Your task to perform on an android device: Open the Play Movies app and select the watchlist tab. Image 0: 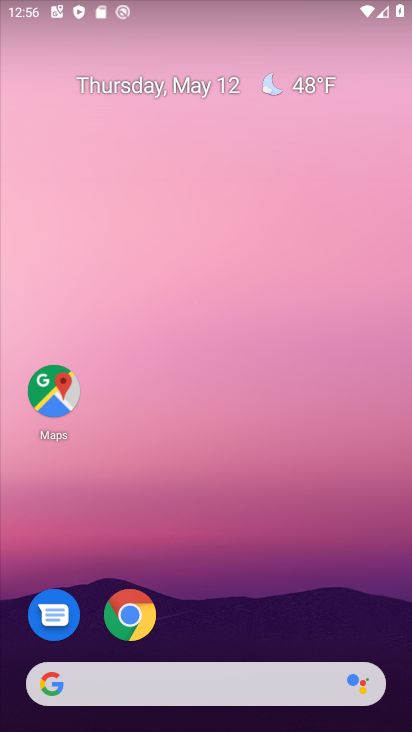
Step 0: drag from (285, 632) to (307, 0)
Your task to perform on an android device: Open the Play Movies app and select the watchlist tab. Image 1: 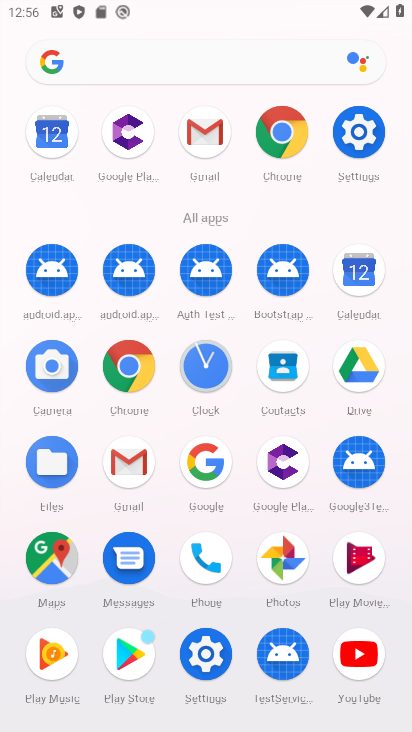
Step 1: drag from (231, 622) to (235, 490)
Your task to perform on an android device: Open the Play Movies app and select the watchlist tab. Image 2: 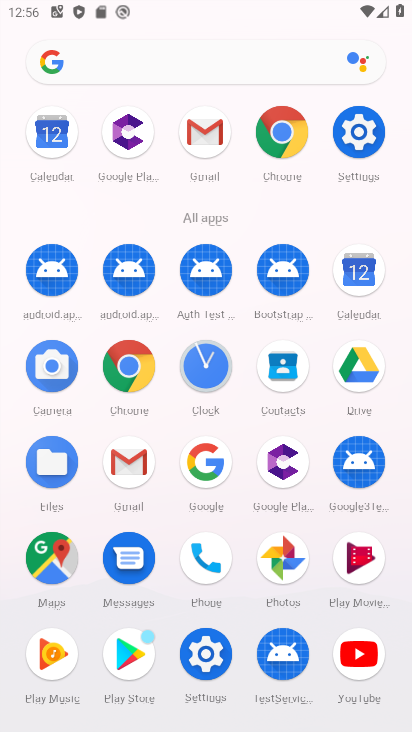
Step 2: click (348, 557)
Your task to perform on an android device: Open the Play Movies app and select the watchlist tab. Image 3: 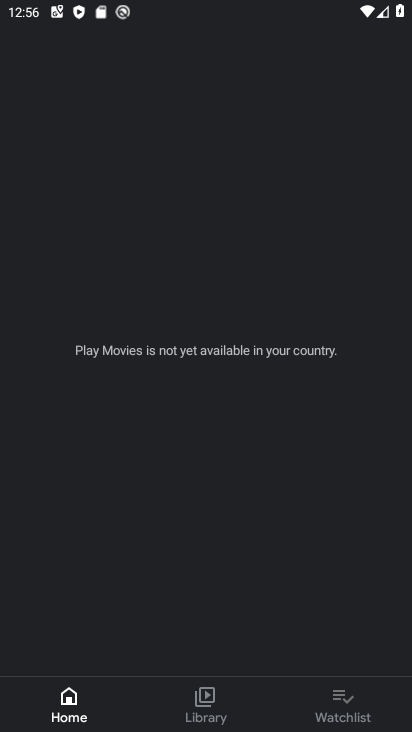
Step 3: click (318, 705)
Your task to perform on an android device: Open the Play Movies app and select the watchlist tab. Image 4: 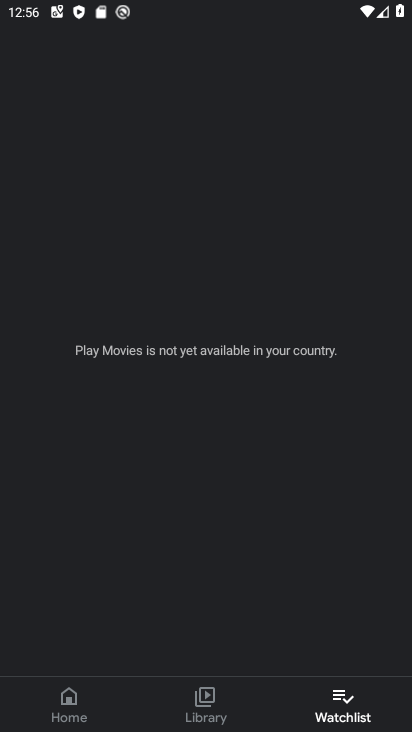
Step 4: task complete